Your task to perform on an android device: Go to settings Image 0: 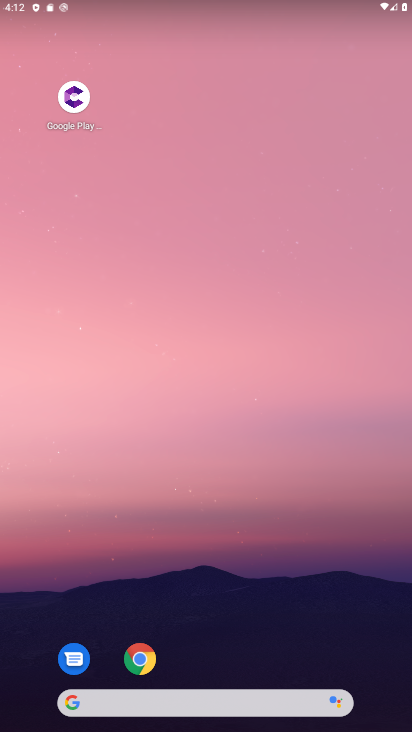
Step 0: drag from (248, 654) to (239, 107)
Your task to perform on an android device: Go to settings Image 1: 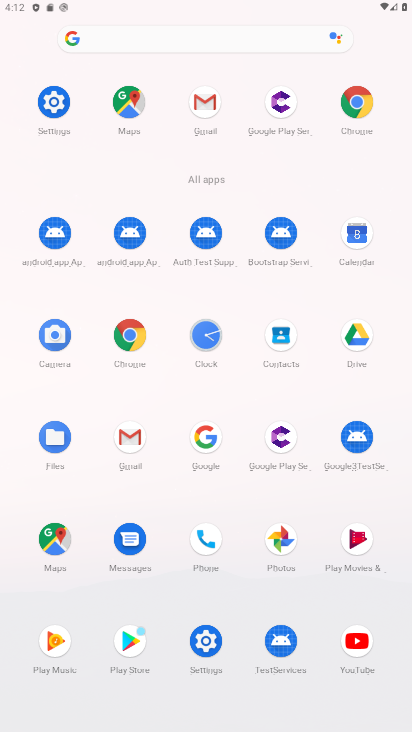
Step 1: click (202, 645)
Your task to perform on an android device: Go to settings Image 2: 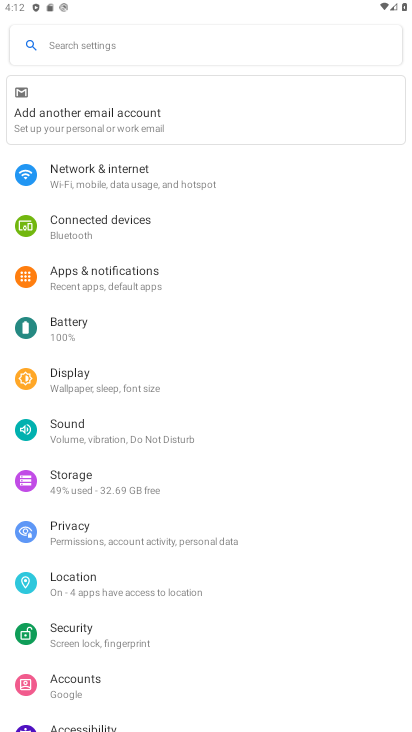
Step 2: task complete